Your task to perform on an android device: check android version Image 0: 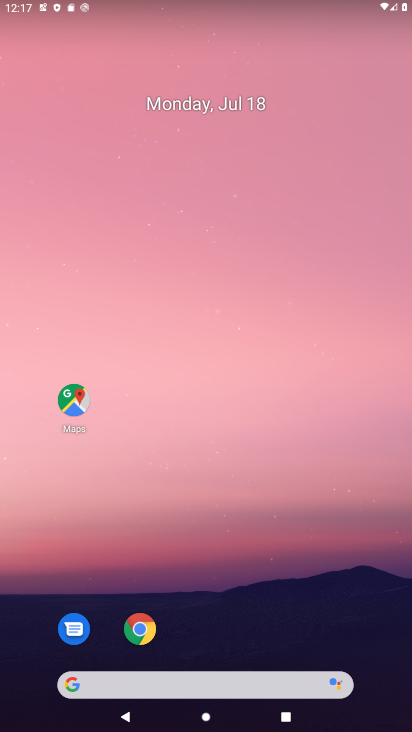
Step 0: press home button
Your task to perform on an android device: check android version Image 1: 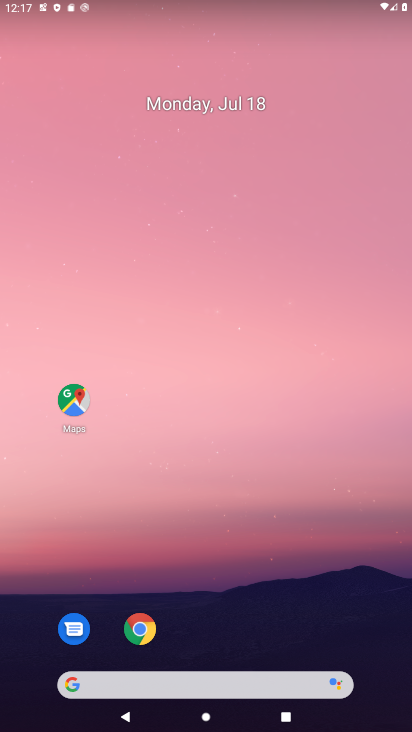
Step 1: drag from (220, 651) to (215, 135)
Your task to perform on an android device: check android version Image 2: 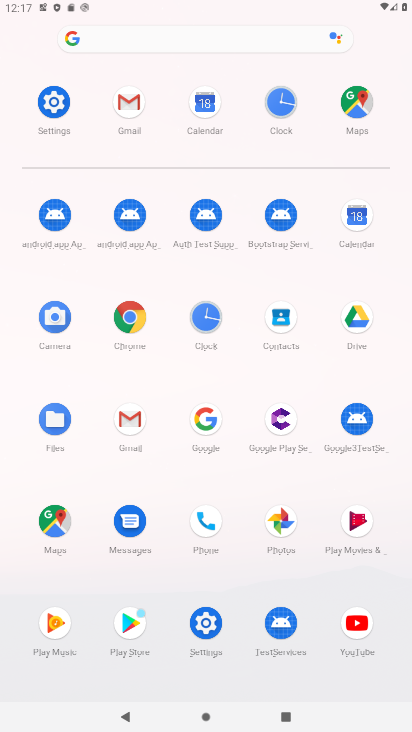
Step 2: click (202, 617)
Your task to perform on an android device: check android version Image 3: 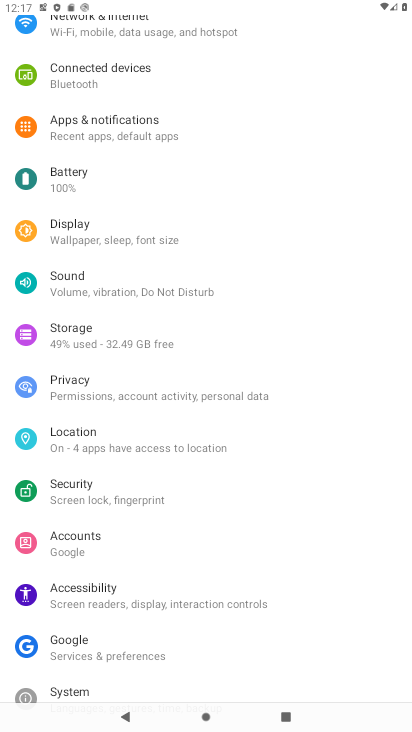
Step 3: drag from (143, 674) to (197, 208)
Your task to perform on an android device: check android version Image 4: 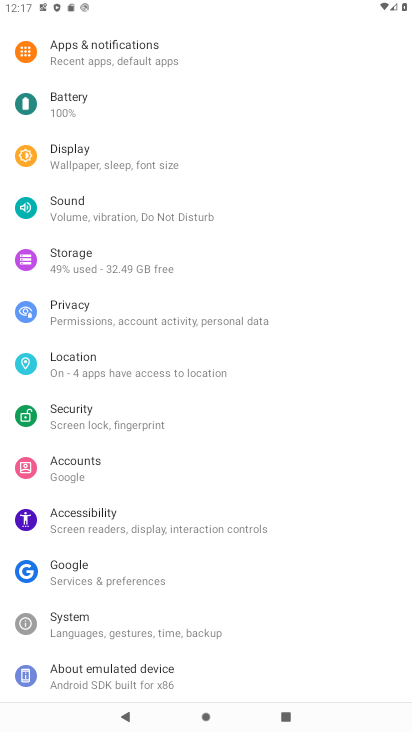
Step 4: click (182, 679)
Your task to perform on an android device: check android version Image 5: 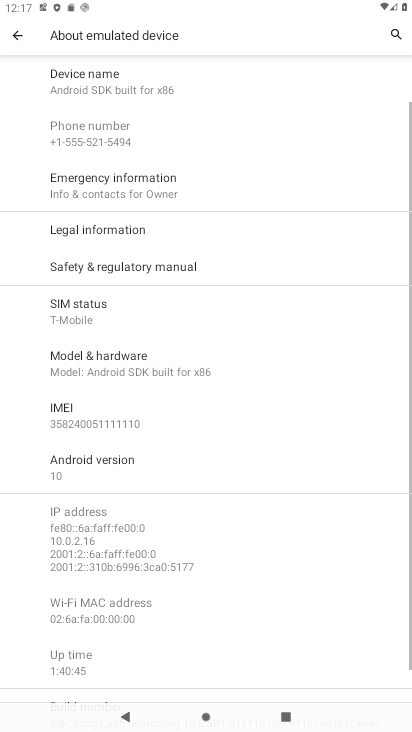
Step 5: click (159, 467)
Your task to perform on an android device: check android version Image 6: 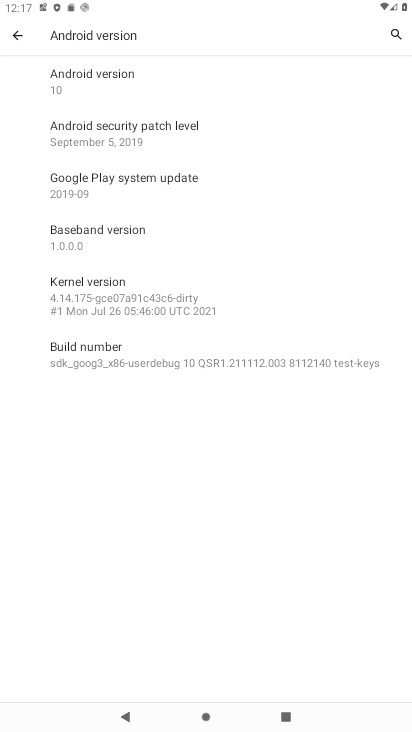
Step 6: click (115, 80)
Your task to perform on an android device: check android version Image 7: 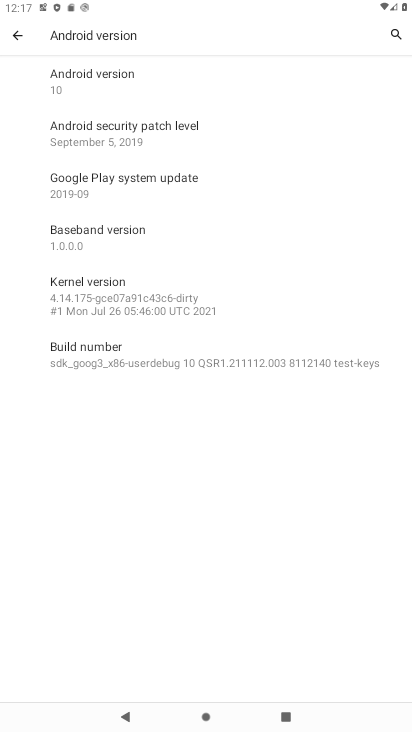
Step 7: task complete